Your task to perform on an android device: delete the emails in spam in the gmail app Image 0: 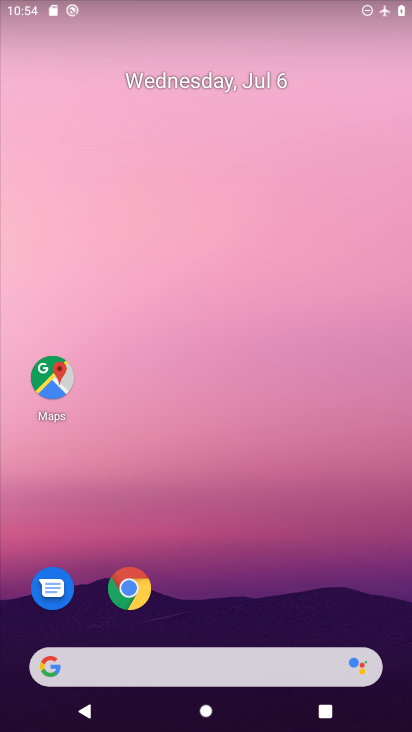
Step 0: drag from (264, 612) to (211, 145)
Your task to perform on an android device: delete the emails in spam in the gmail app Image 1: 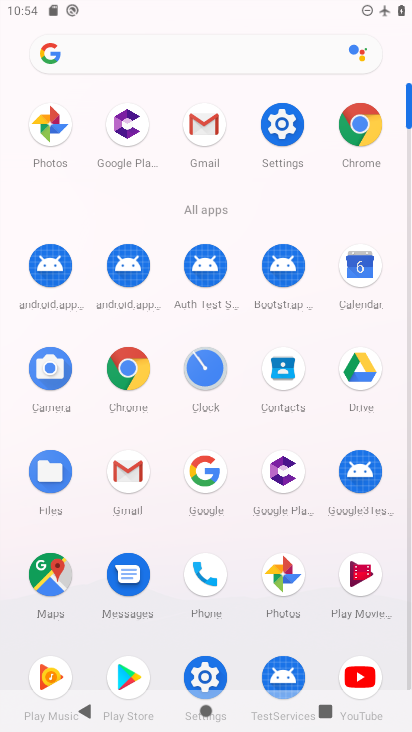
Step 1: click (199, 132)
Your task to perform on an android device: delete the emails in spam in the gmail app Image 2: 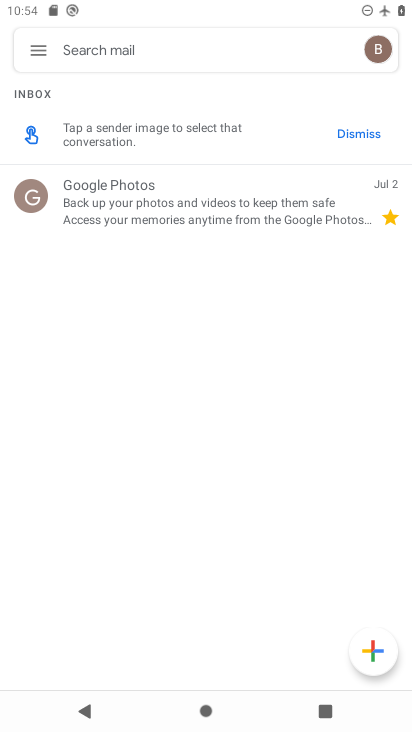
Step 2: click (34, 51)
Your task to perform on an android device: delete the emails in spam in the gmail app Image 3: 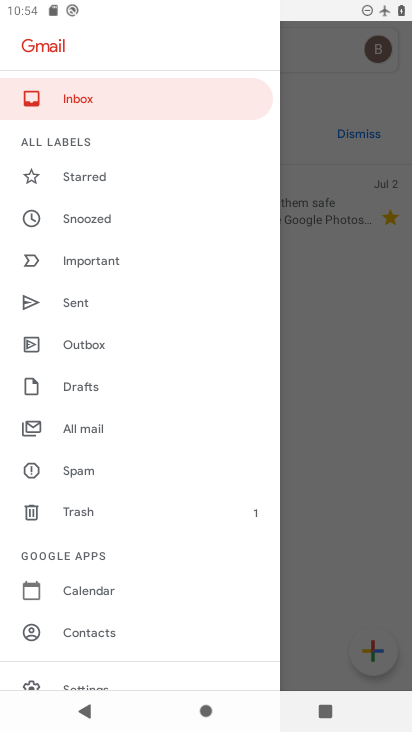
Step 3: click (150, 474)
Your task to perform on an android device: delete the emails in spam in the gmail app Image 4: 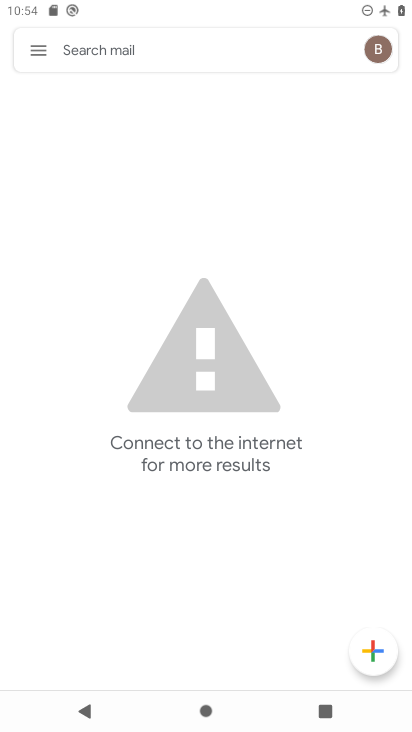
Step 4: task complete